Your task to perform on an android device: Open the stopwatch Image 0: 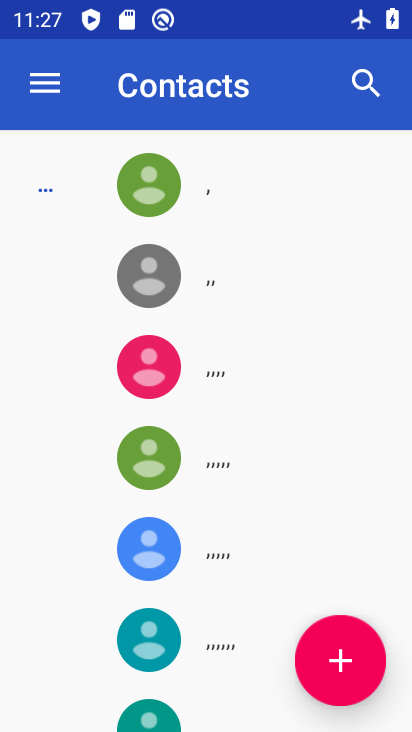
Step 0: press home button
Your task to perform on an android device: Open the stopwatch Image 1: 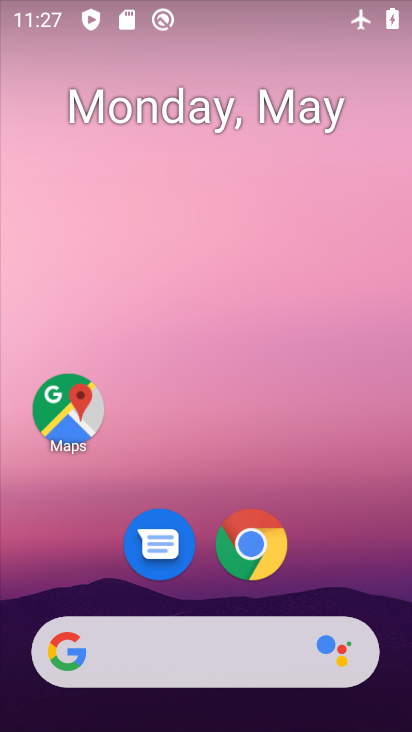
Step 1: drag from (385, 527) to (301, 154)
Your task to perform on an android device: Open the stopwatch Image 2: 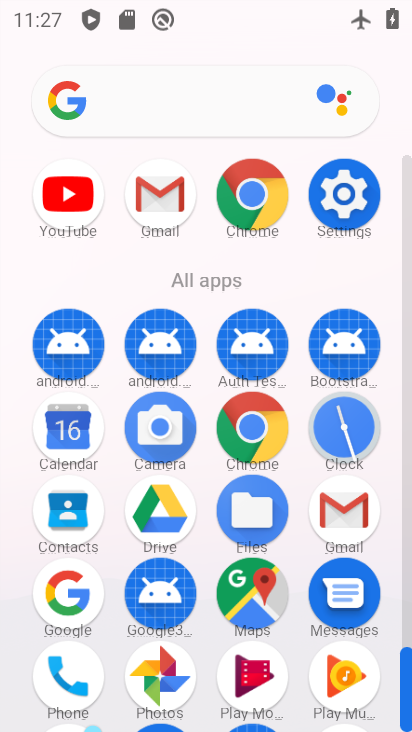
Step 2: click (314, 447)
Your task to perform on an android device: Open the stopwatch Image 3: 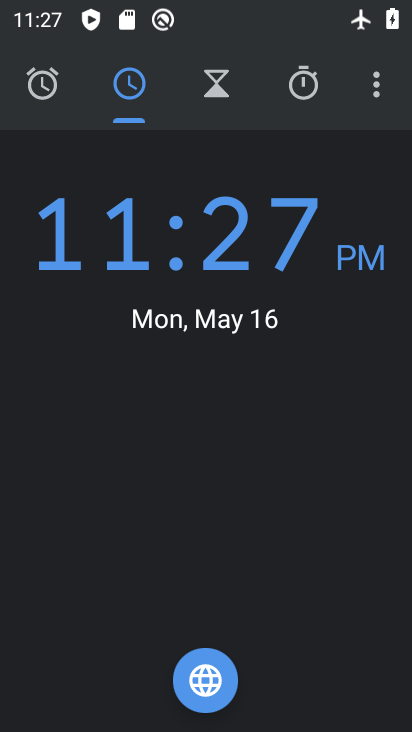
Step 3: click (306, 91)
Your task to perform on an android device: Open the stopwatch Image 4: 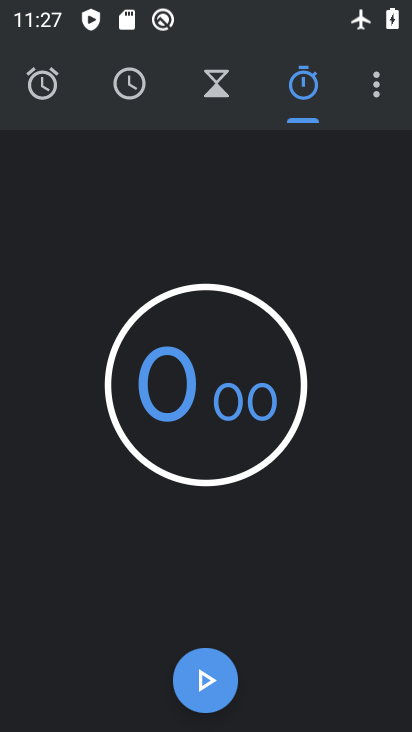
Step 4: click (209, 692)
Your task to perform on an android device: Open the stopwatch Image 5: 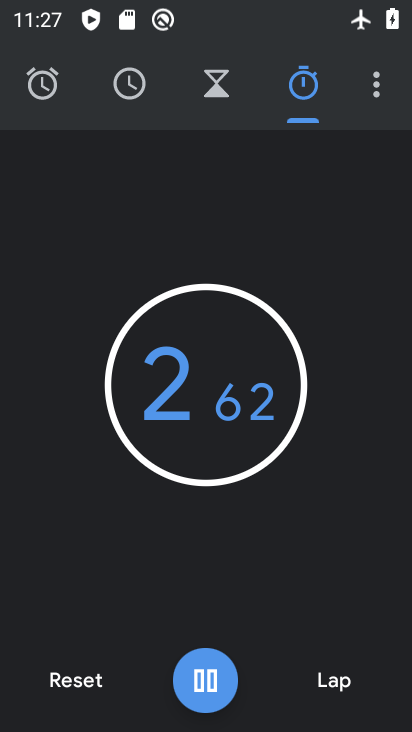
Step 5: click (225, 683)
Your task to perform on an android device: Open the stopwatch Image 6: 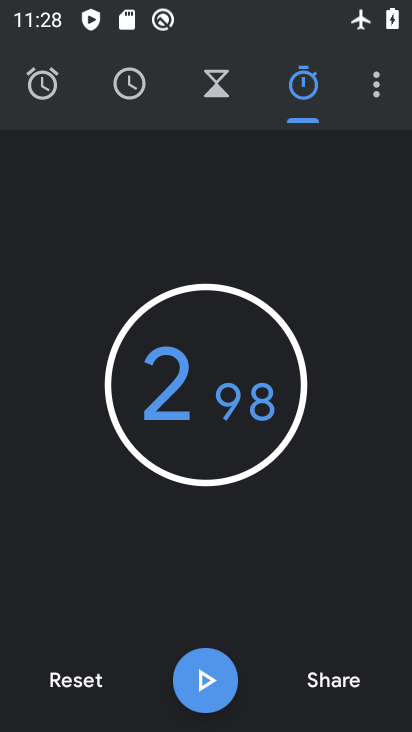
Step 6: task complete